Your task to perform on an android device: Open the calendar and show me this week's events Image 0: 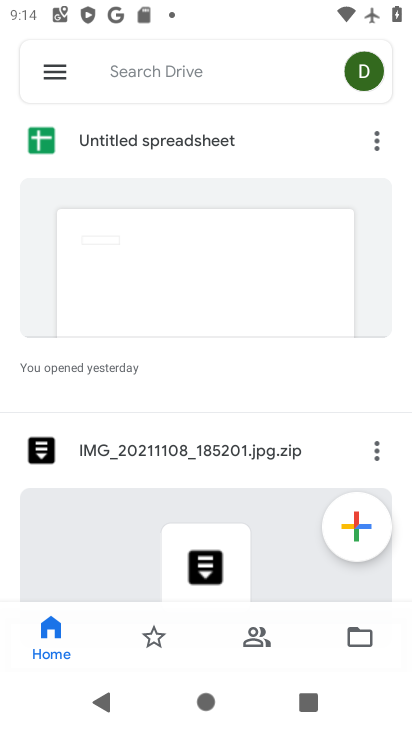
Step 0: press home button
Your task to perform on an android device: Open the calendar and show me this week's events Image 1: 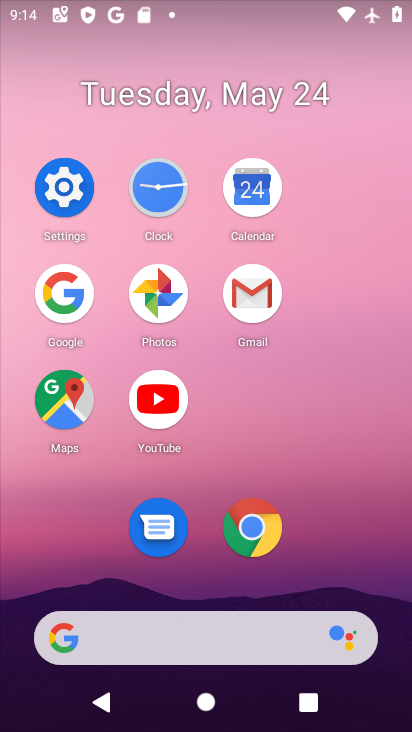
Step 1: click (252, 186)
Your task to perform on an android device: Open the calendar and show me this week's events Image 2: 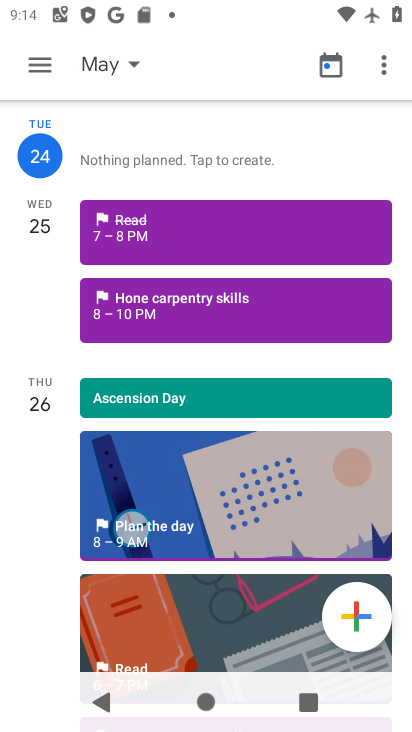
Step 2: click (53, 82)
Your task to perform on an android device: Open the calendar and show me this week's events Image 3: 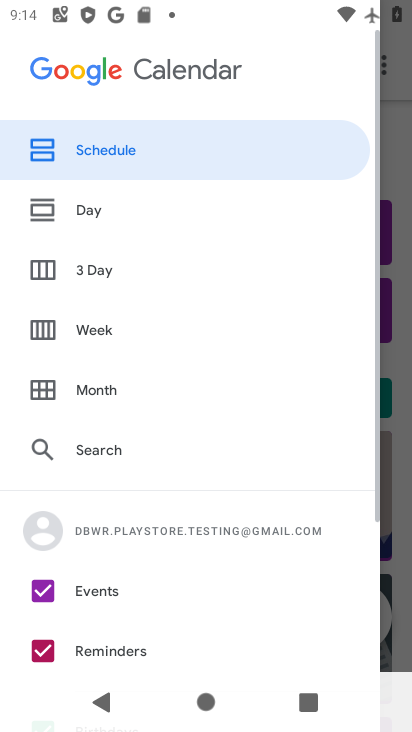
Step 3: click (114, 337)
Your task to perform on an android device: Open the calendar and show me this week's events Image 4: 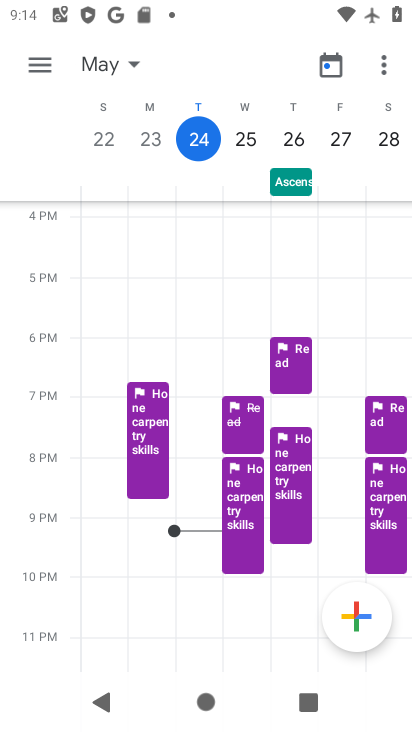
Step 4: task complete